Your task to perform on an android device: Play the last video I watched on Youtube Image 0: 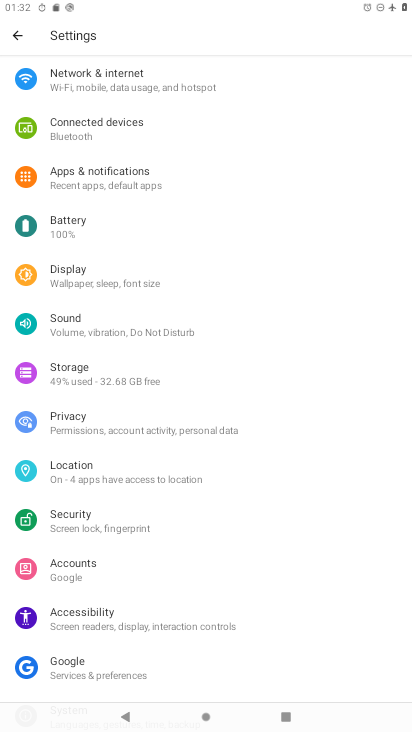
Step 0: press home button
Your task to perform on an android device: Play the last video I watched on Youtube Image 1: 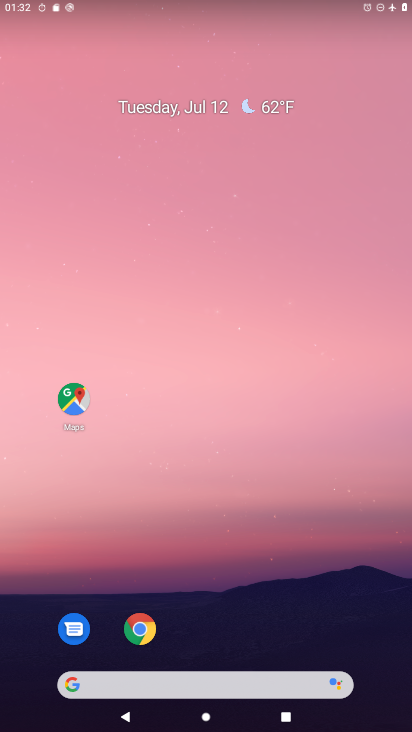
Step 1: drag from (236, 651) to (270, 103)
Your task to perform on an android device: Play the last video I watched on Youtube Image 2: 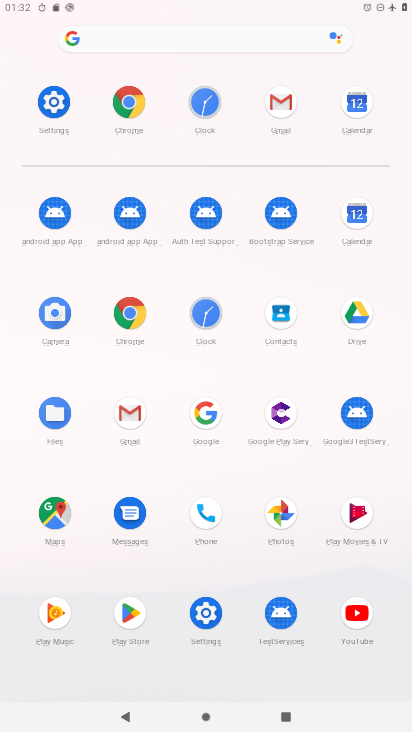
Step 2: click (352, 619)
Your task to perform on an android device: Play the last video I watched on Youtube Image 3: 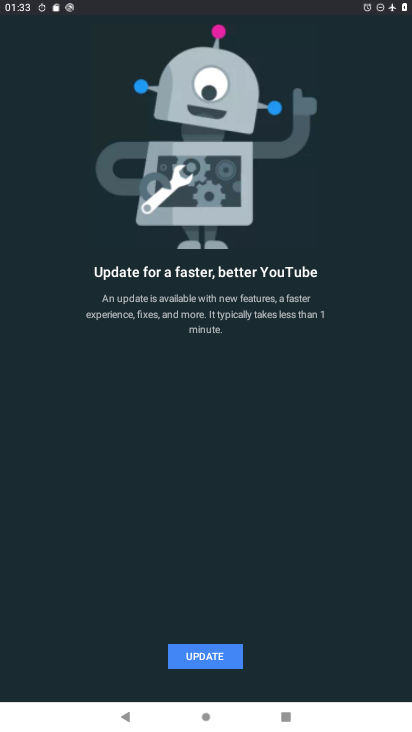
Step 3: press home button
Your task to perform on an android device: Play the last video I watched on Youtube Image 4: 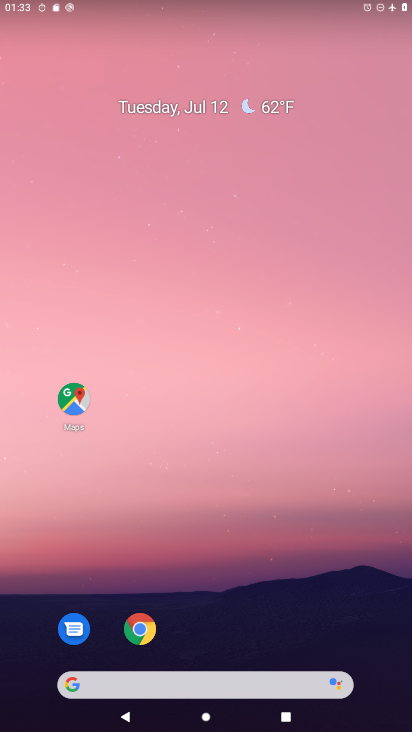
Step 4: drag from (280, 562) to (271, 45)
Your task to perform on an android device: Play the last video I watched on Youtube Image 5: 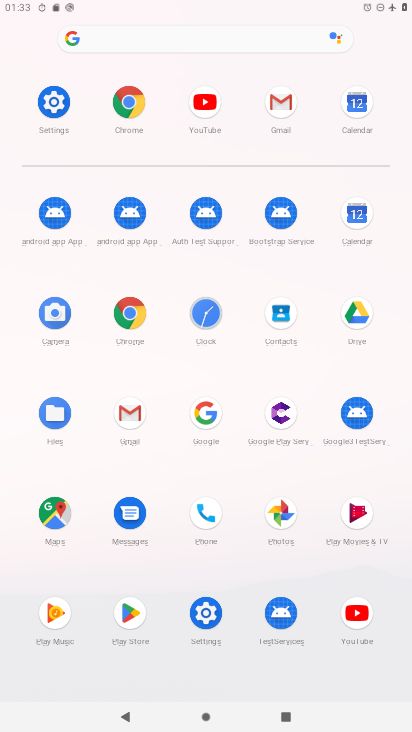
Step 5: click (348, 619)
Your task to perform on an android device: Play the last video I watched on Youtube Image 6: 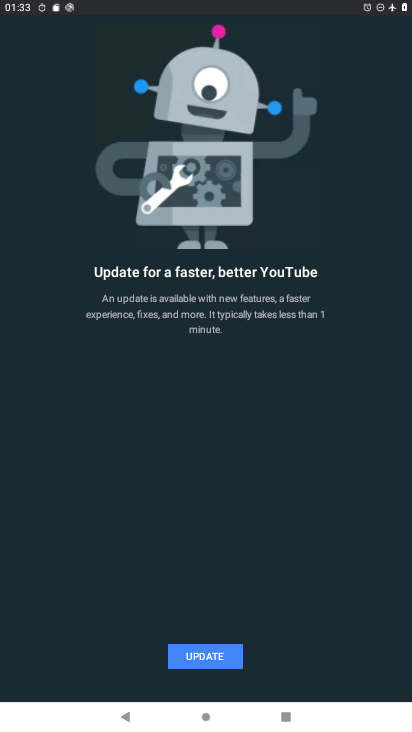
Step 6: click (190, 648)
Your task to perform on an android device: Play the last video I watched on Youtube Image 7: 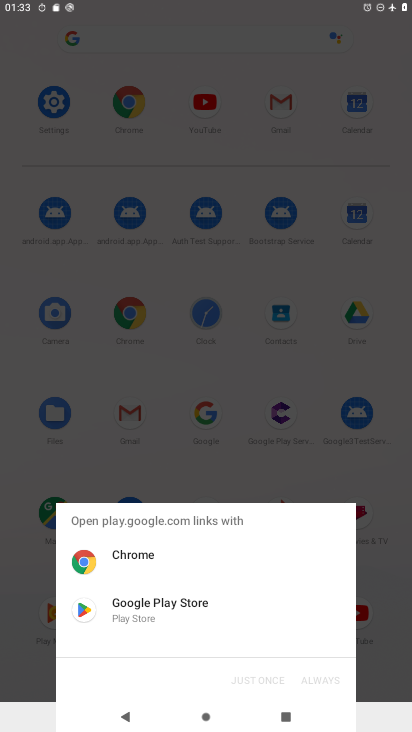
Step 7: click (156, 611)
Your task to perform on an android device: Play the last video I watched on Youtube Image 8: 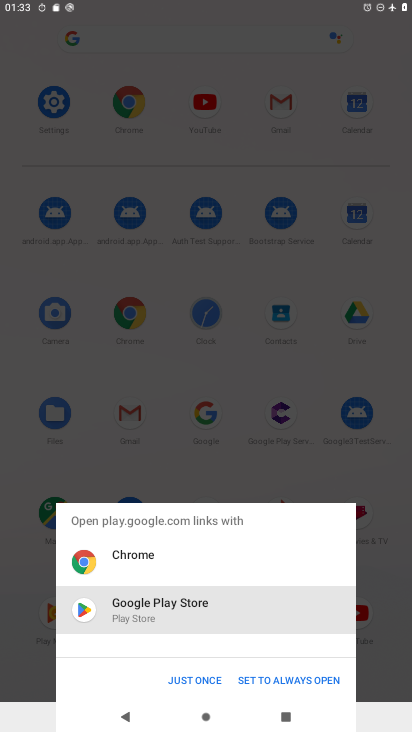
Step 8: click (193, 675)
Your task to perform on an android device: Play the last video I watched on Youtube Image 9: 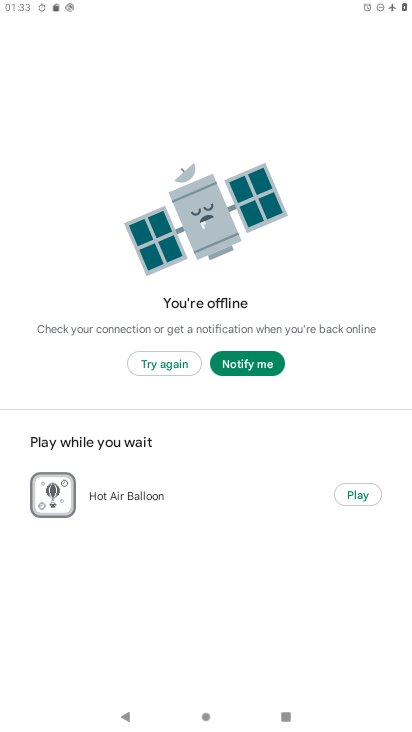
Step 9: task complete